Your task to perform on an android device: Open accessibility settings Image 0: 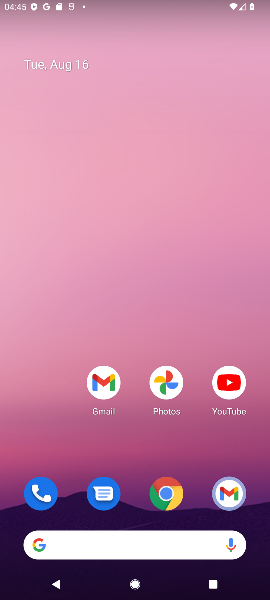
Step 0: press home button
Your task to perform on an android device: Open accessibility settings Image 1: 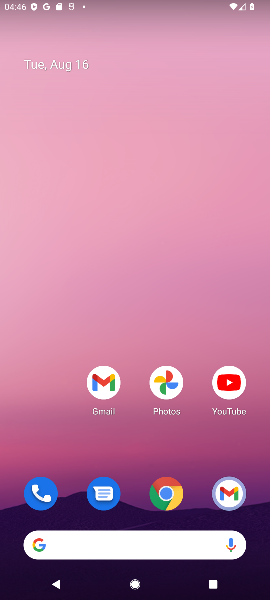
Step 1: drag from (69, 498) to (74, 203)
Your task to perform on an android device: Open accessibility settings Image 2: 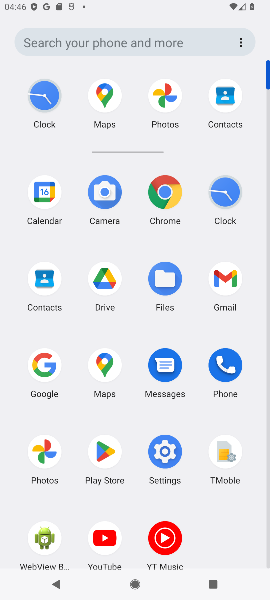
Step 2: click (163, 452)
Your task to perform on an android device: Open accessibility settings Image 3: 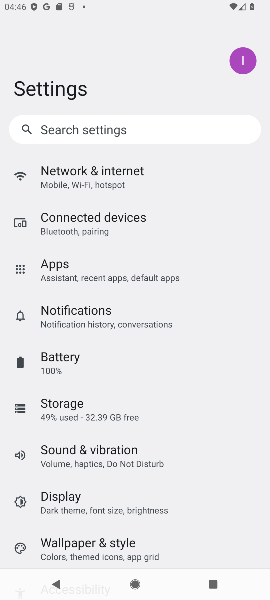
Step 3: drag from (218, 479) to (220, 375)
Your task to perform on an android device: Open accessibility settings Image 4: 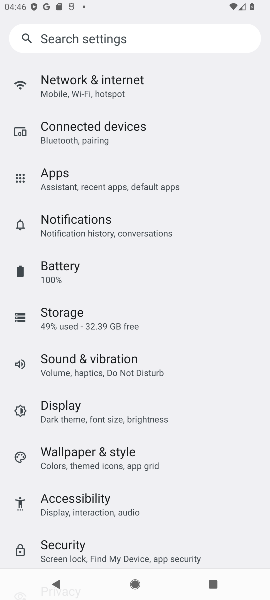
Step 4: drag from (198, 484) to (206, 363)
Your task to perform on an android device: Open accessibility settings Image 5: 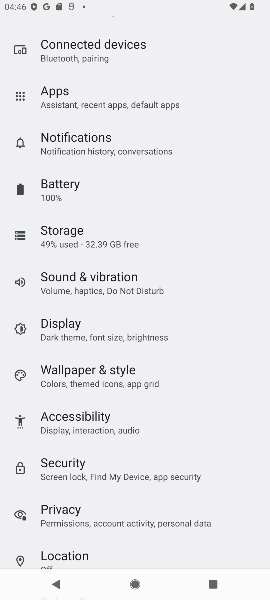
Step 5: drag from (228, 505) to (239, 384)
Your task to perform on an android device: Open accessibility settings Image 6: 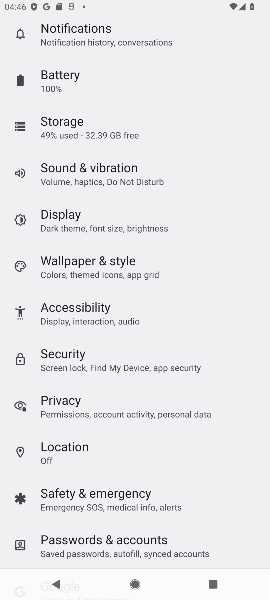
Step 6: drag from (219, 467) to (251, 331)
Your task to perform on an android device: Open accessibility settings Image 7: 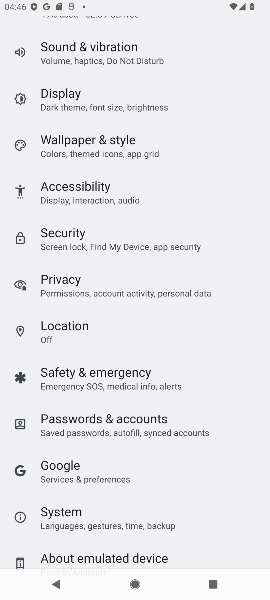
Step 7: drag from (236, 493) to (244, 340)
Your task to perform on an android device: Open accessibility settings Image 8: 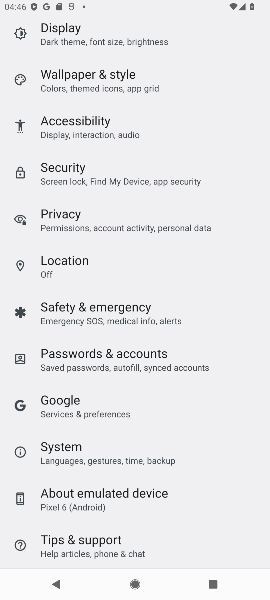
Step 8: drag from (235, 180) to (229, 374)
Your task to perform on an android device: Open accessibility settings Image 9: 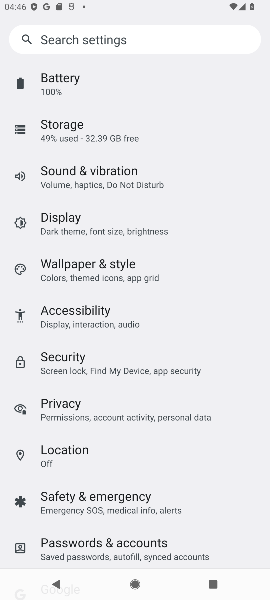
Step 9: click (153, 329)
Your task to perform on an android device: Open accessibility settings Image 10: 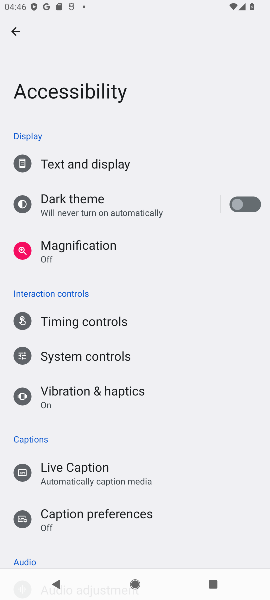
Step 10: task complete